Your task to perform on an android device: Go to wifi settings Image 0: 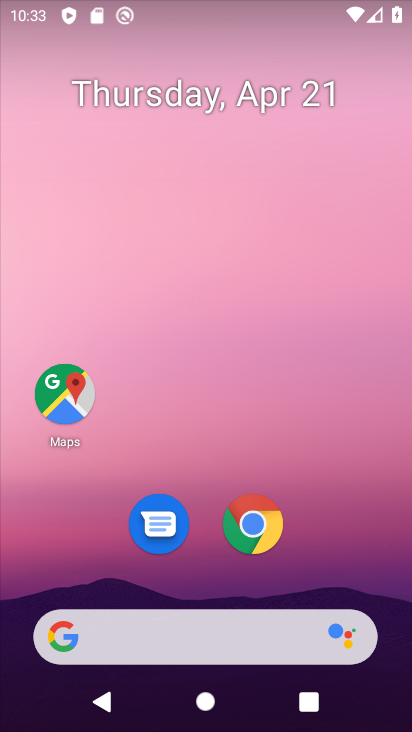
Step 0: drag from (355, 540) to (372, 79)
Your task to perform on an android device: Go to wifi settings Image 1: 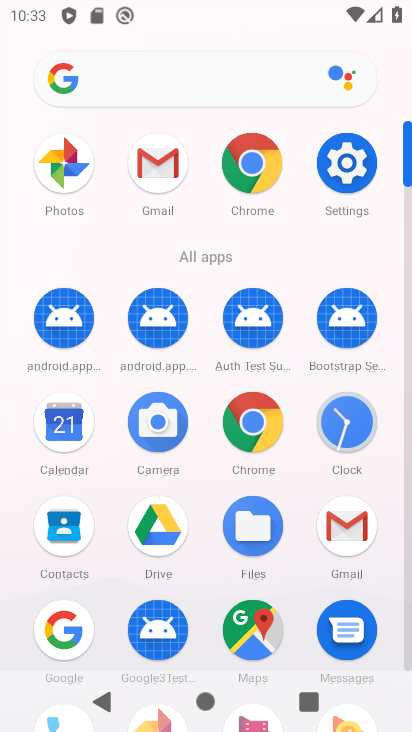
Step 1: click (351, 167)
Your task to perform on an android device: Go to wifi settings Image 2: 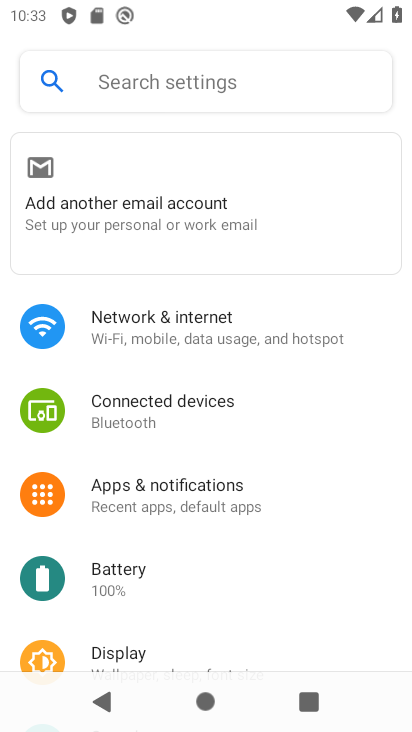
Step 2: click (217, 320)
Your task to perform on an android device: Go to wifi settings Image 3: 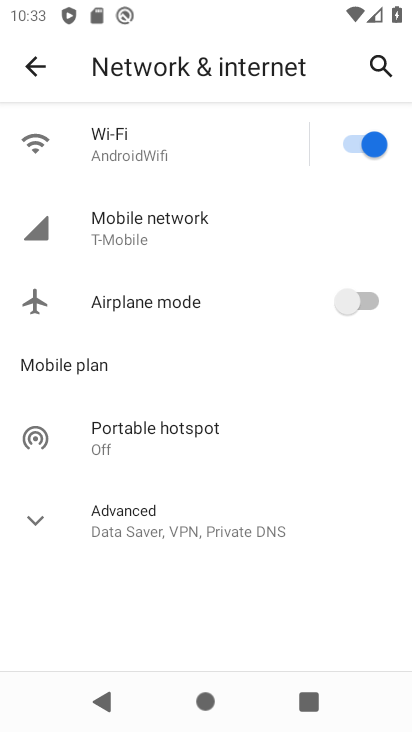
Step 3: click (209, 153)
Your task to perform on an android device: Go to wifi settings Image 4: 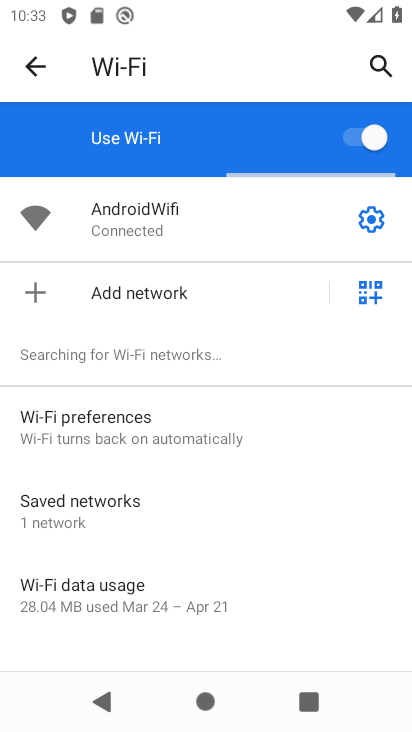
Step 4: task complete